Your task to perform on an android device: set default search engine in the chrome app Image 0: 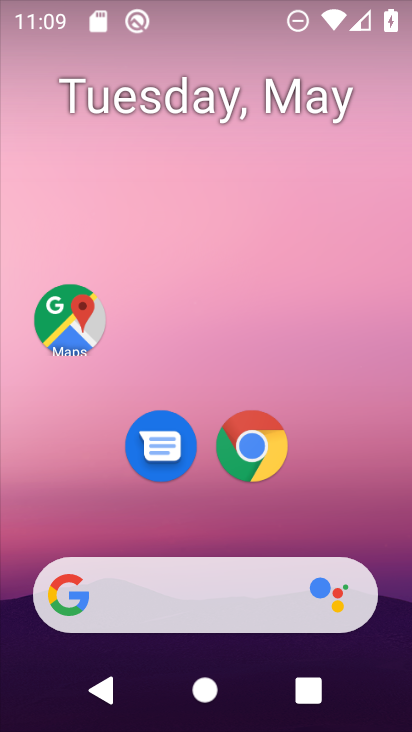
Step 0: click (252, 462)
Your task to perform on an android device: set default search engine in the chrome app Image 1: 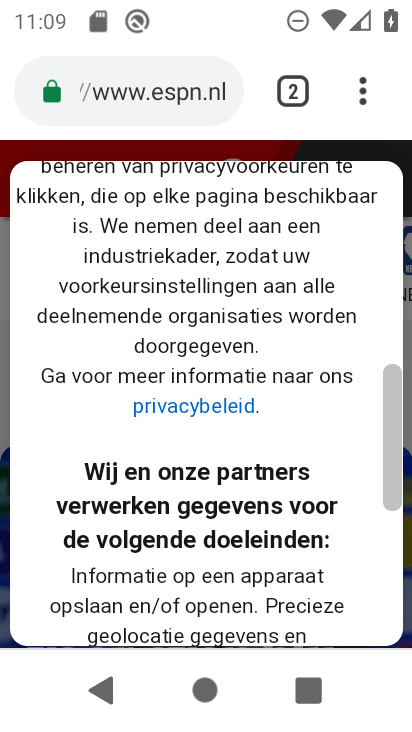
Step 1: click (362, 90)
Your task to perform on an android device: set default search engine in the chrome app Image 2: 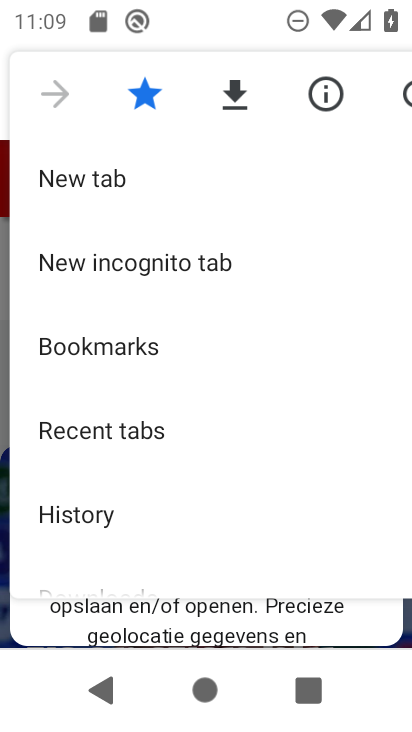
Step 2: drag from (117, 534) to (174, 107)
Your task to perform on an android device: set default search engine in the chrome app Image 3: 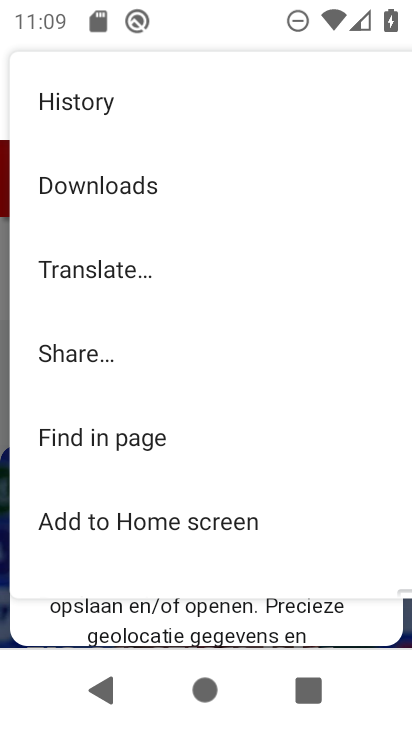
Step 3: drag from (153, 464) to (237, 44)
Your task to perform on an android device: set default search engine in the chrome app Image 4: 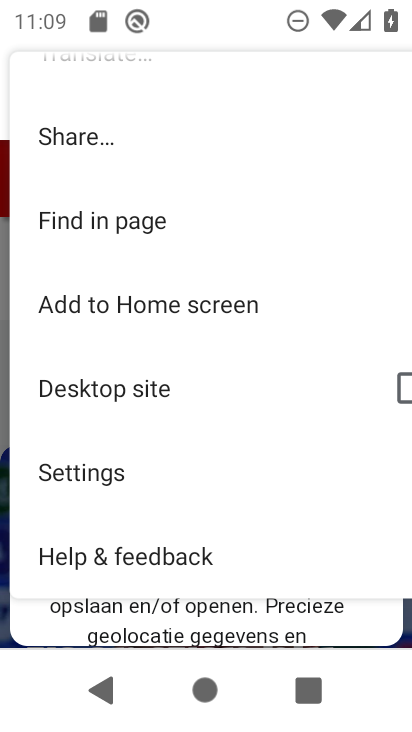
Step 4: click (113, 484)
Your task to perform on an android device: set default search engine in the chrome app Image 5: 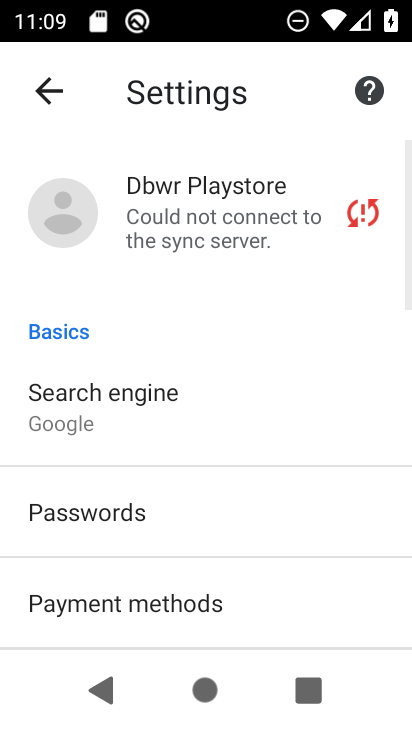
Step 5: click (130, 426)
Your task to perform on an android device: set default search engine in the chrome app Image 6: 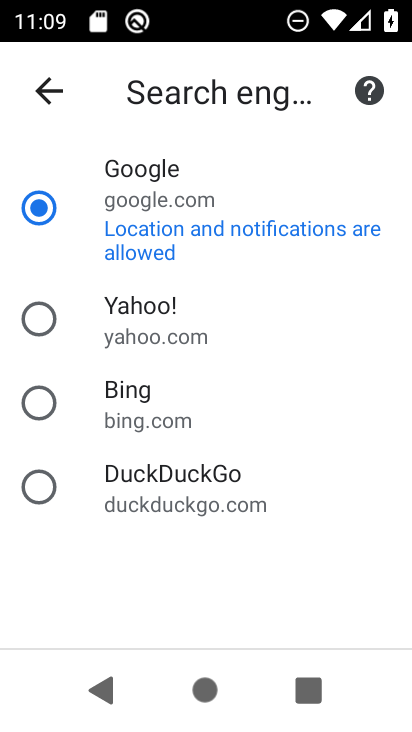
Step 6: click (164, 227)
Your task to perform on an android device: set default search engine in the chrome app Image 7: 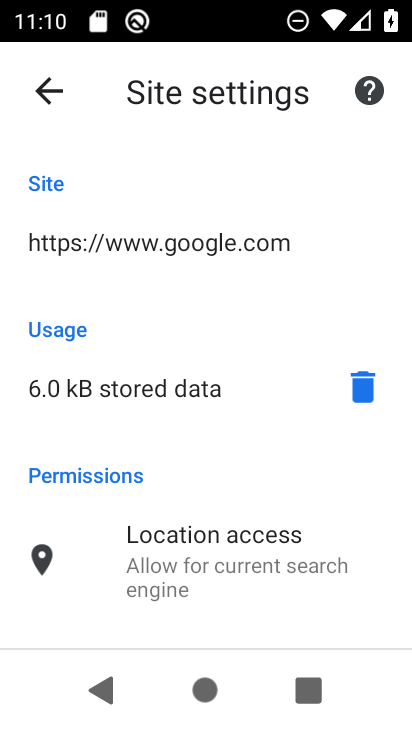
Step 7: drag from (275, 517) to (339, 12)
Your task to perform on an android device: set default search engine in the chrome app Image 8: 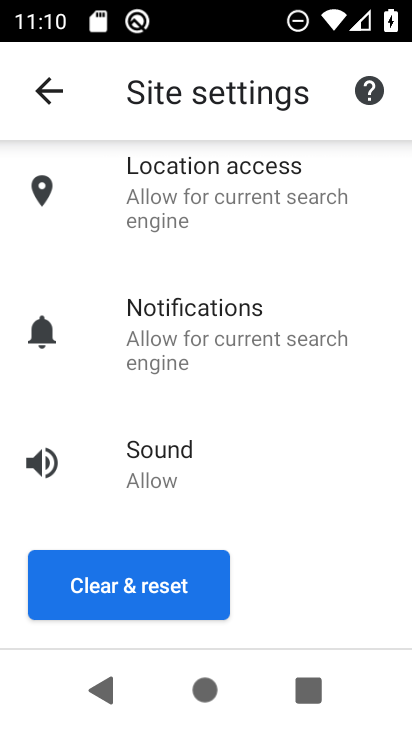
Step 8: click (161, 590)
Your task to perform on an android device: set default search engine in the chrome app Image 9: 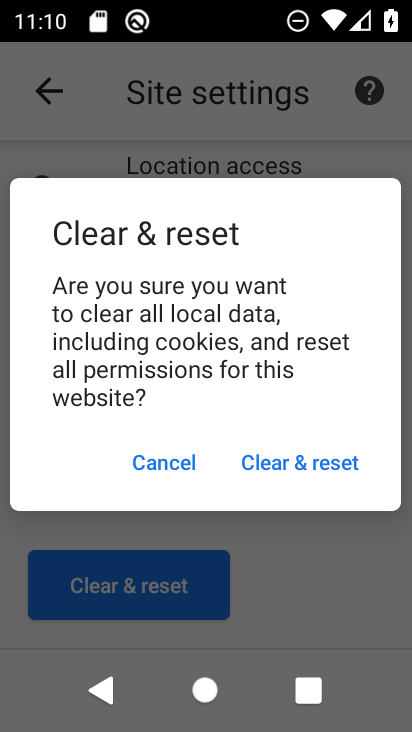
Step 9: click (281, 468)
Your task to perform on an android device: set default search engine in the chrome app Image 10: 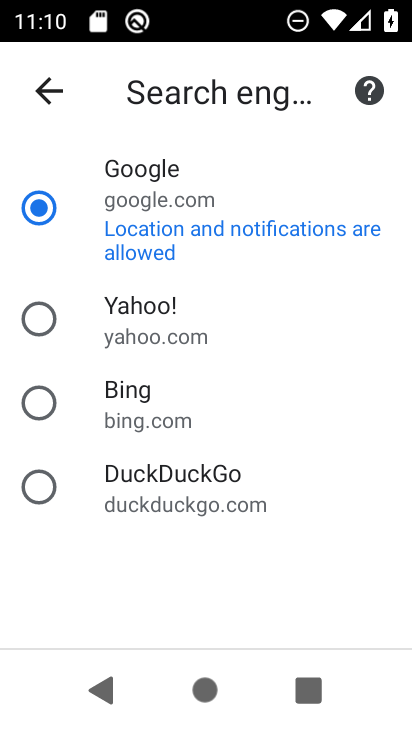
Step 10: task complete